Your task to perform on an android device: toggle priority inbox in the gmail app Image 0: 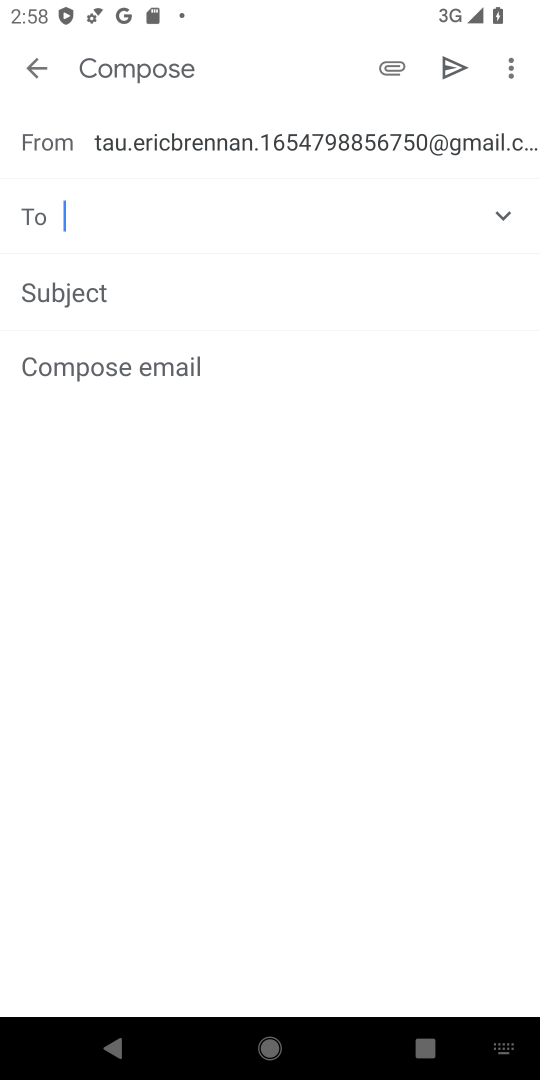
Step 0: press back button
Your task to perform on an android device: toggle priority inbox in the gmail app Image 1: 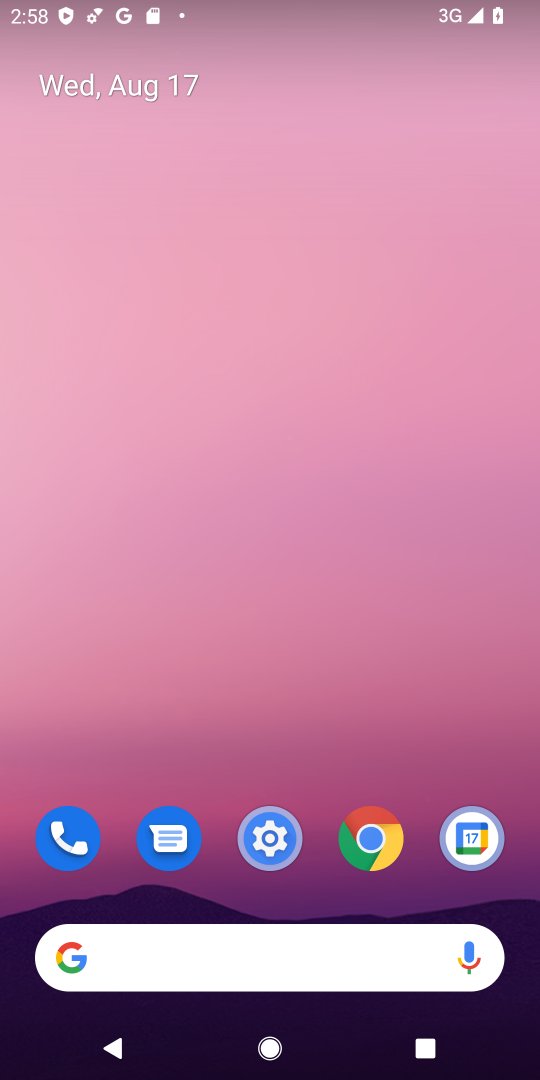
Step 1: drag from (299, 886) to (412, 189)
Your task to perform on an android device: toggle priority inbox in the gmail app Image 2: 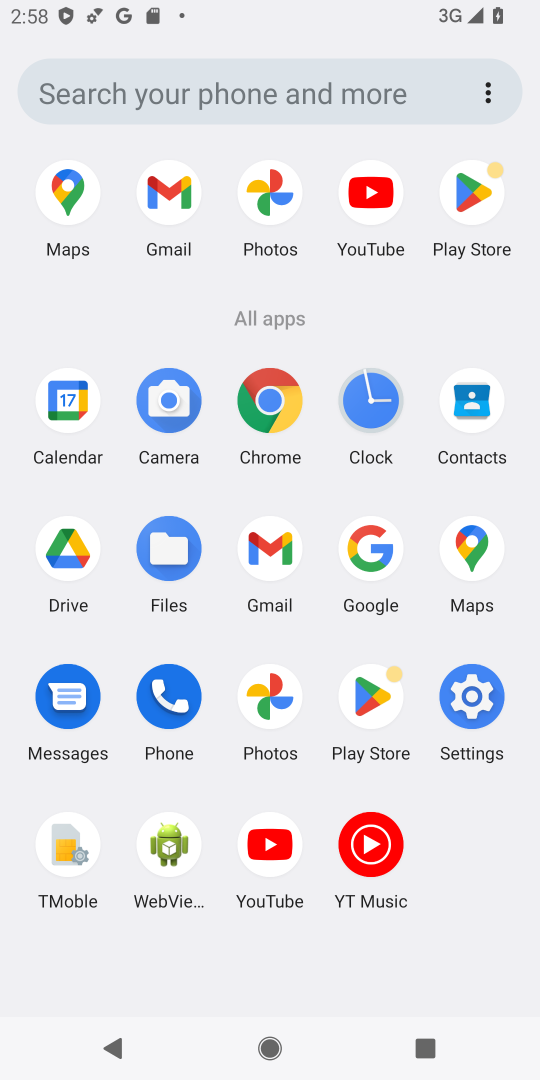
Step 2: click (185, 206)
Your task to perform on an android device: toggle priority inbox in the gmail app Image 3: 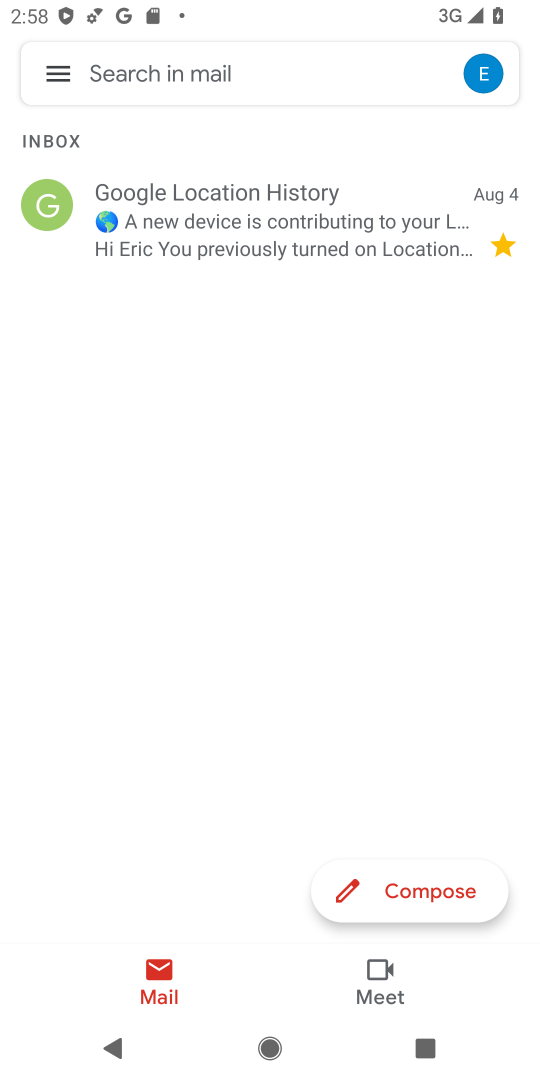
Step 3: click (51, 74)
Your task to perform on an android device: toggle priority inbox in the gmail app Image 4: 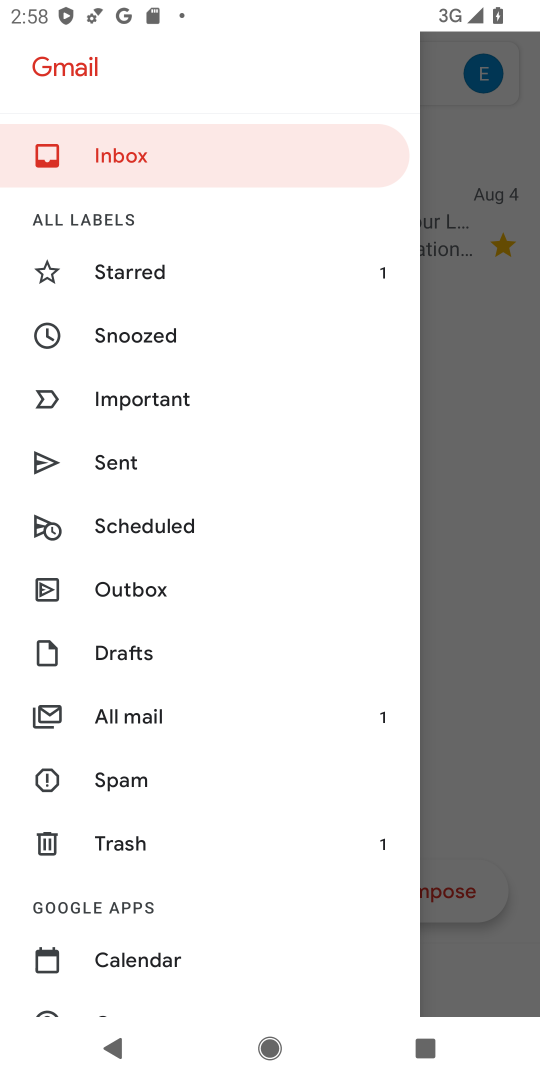
Step 4: drag from (166, 933) to (257, 50)
Your task to perform on an android device: toggle priority inbox in the gmail app Image 5: 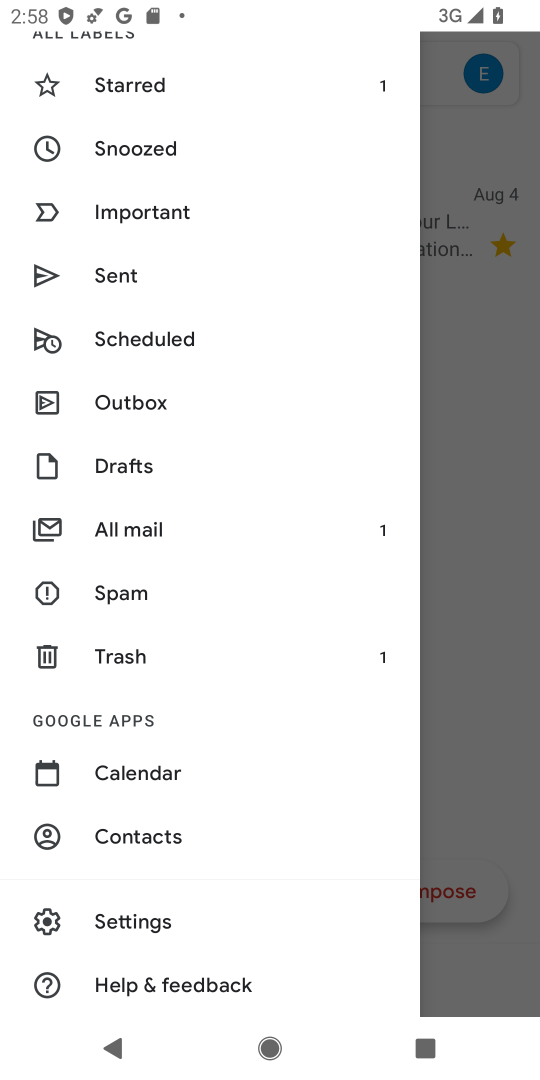
Step 5: click (122, 923)
Your task to perform on an android device: toggle priority inbox in the gmail app Image 6: 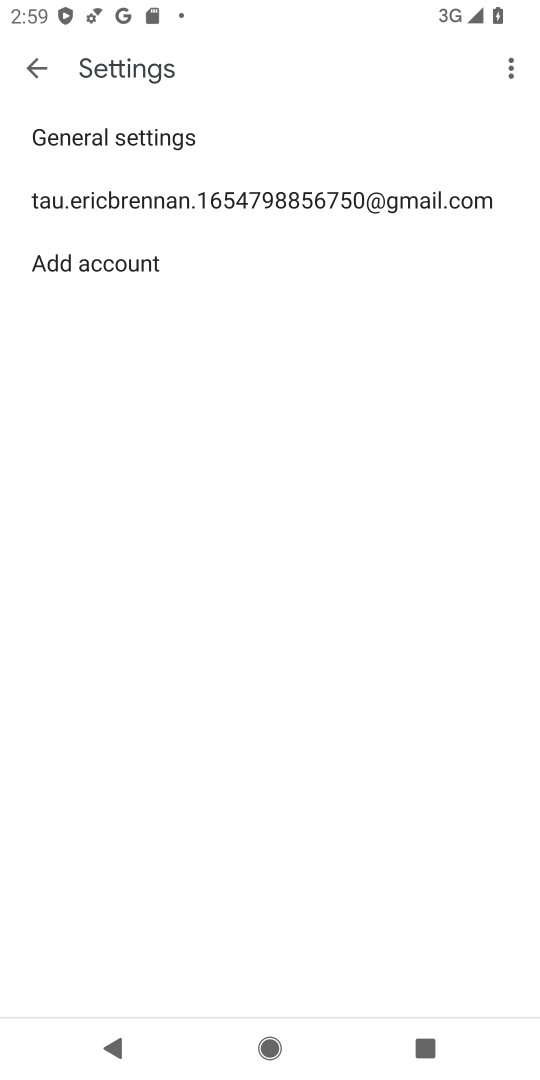
Step 6: click (207, 208)
Your task to perform on an android device: toggle priority inbox in the gmail app Image 7: 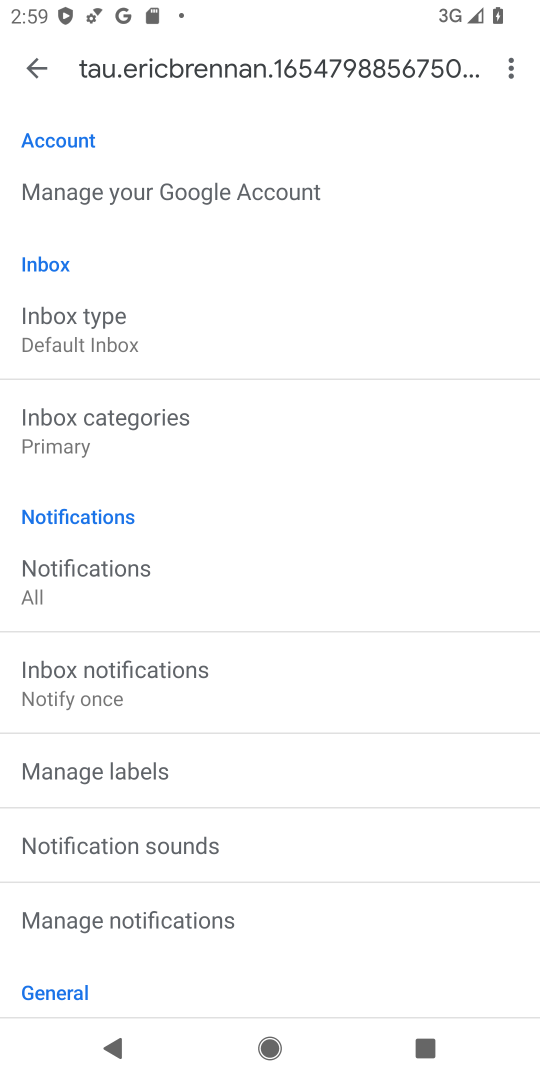
Step 7: click (111, 332)
Your task to perform on an android device: toggle priority inbox in the gmail app Image 8: 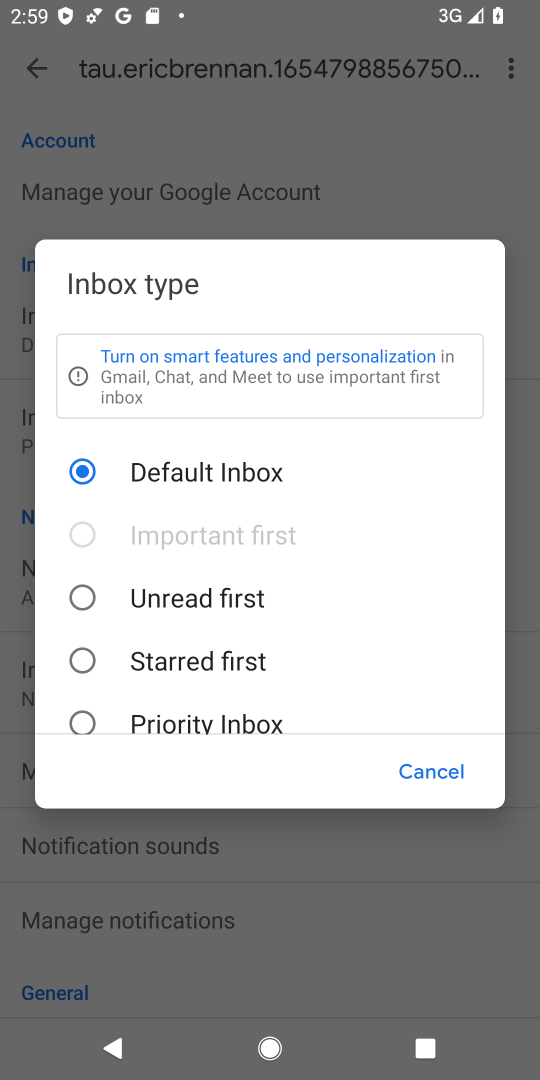
Step 8: click (76, 721)
Your task to perform on an android device: toggle priority inbox in the gmail app Image 9: 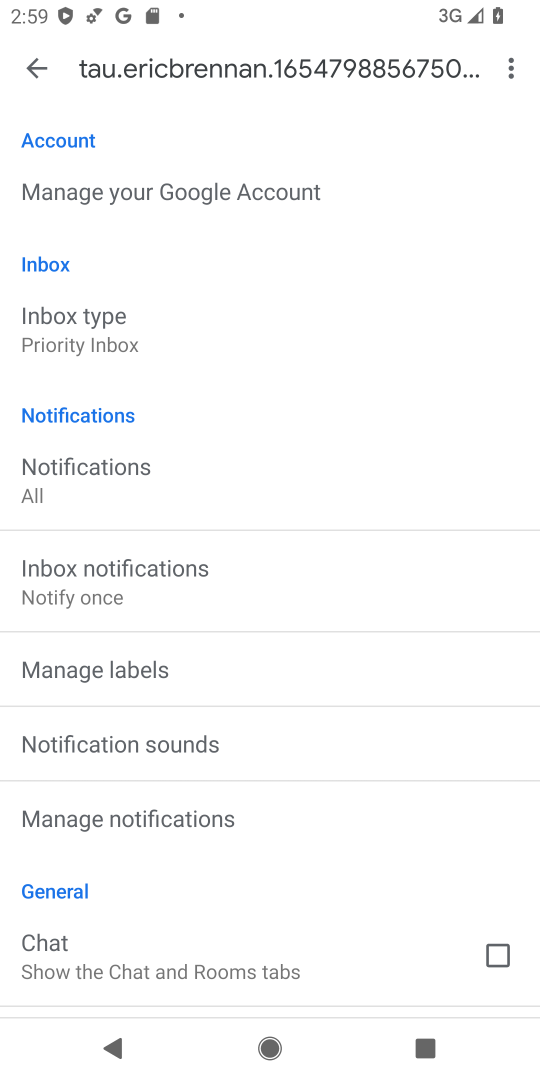
Step 9: task complete